Your task to perform on an android device: Open Chrome and go to settings Image 0: 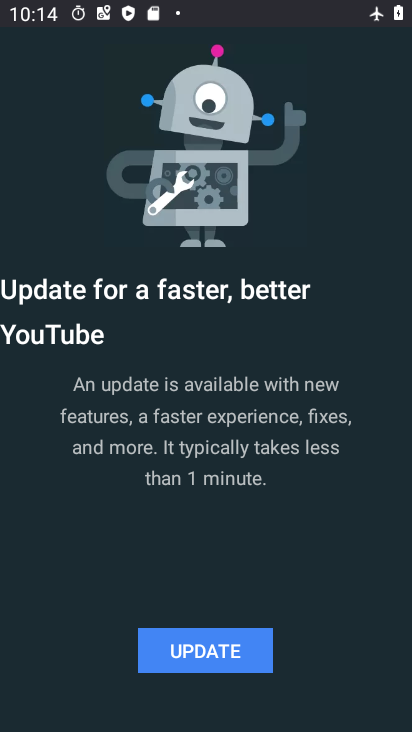
Step 0: press back button
Your task to perform on an android device: Open Chrome and go to settings Image 1: 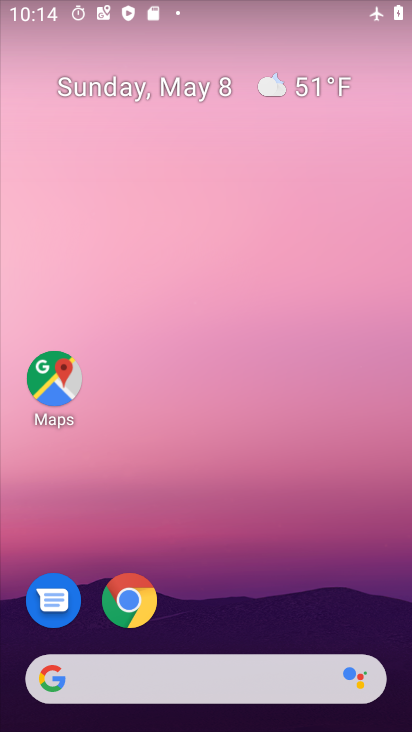
Step 1: drag from (282, 585) to (280, 6)
Your task to perform on an android device: Open Chrome and go to settings Image 2: 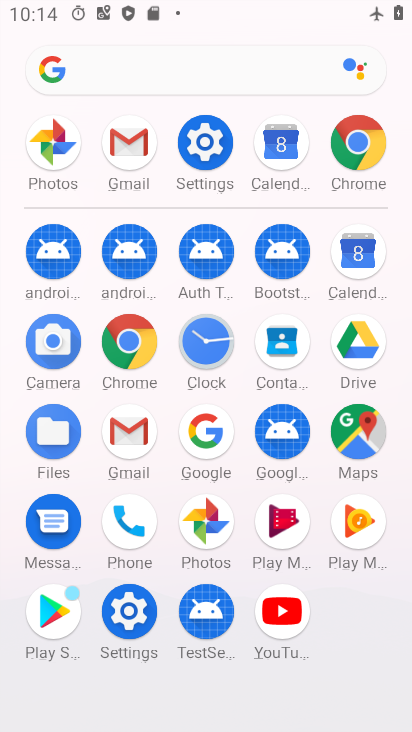
Step 2: click (123, 335)
Your task to perform on an android device: Open Chrome and go to settings Image 3: 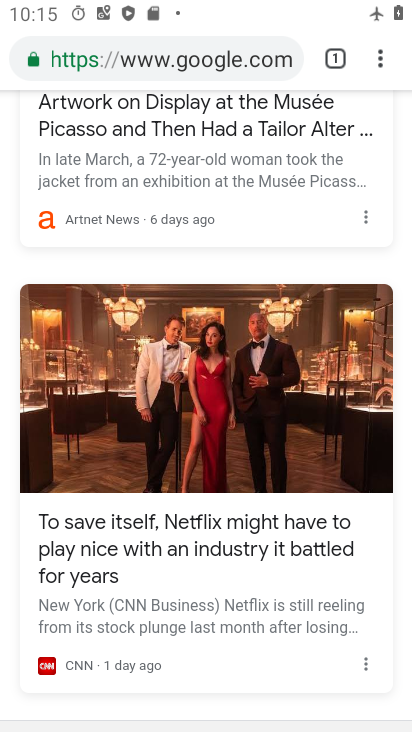
Step 3: task complete